Your task to perform on an android device: choose inbox layout in the gmail app Image 0: 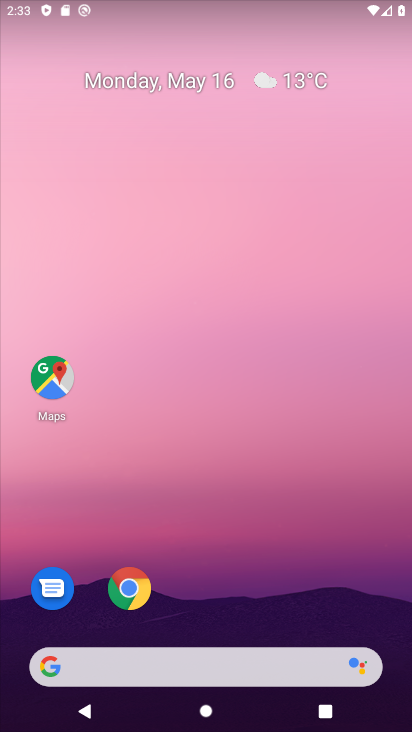
Step 0: drag from (180, 624) to (223, 266)
Your task to perform on an android device: choose inbox layout in the gmail app Image 1: 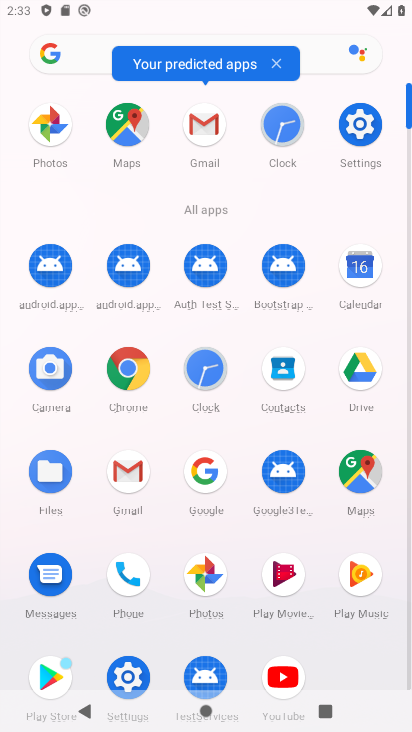
Step 1: click (208, 125)
Your task to perform on an android device: choose inbox layout in the gmail app Image 2: 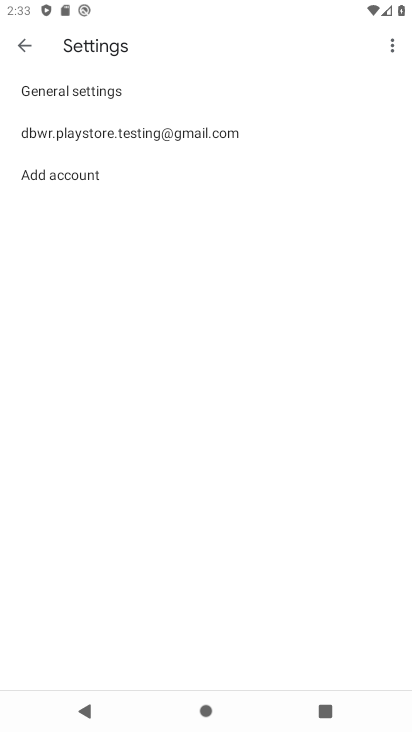
Step 2: click (208, 125)
Your task to perform on an android device: choose inbox layout in the gmail app Image 3: 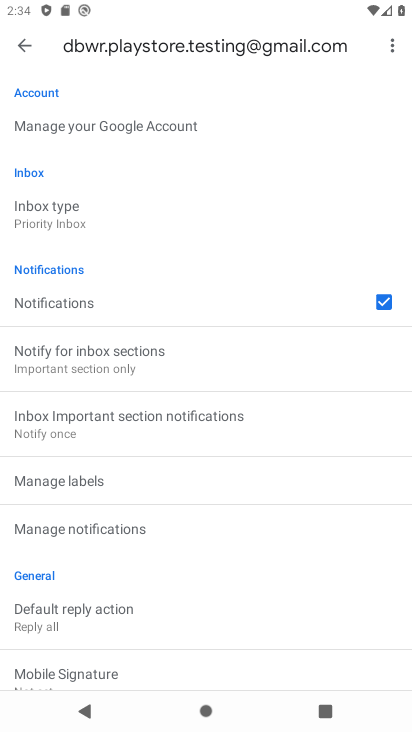
Step 3: task complete